Your task to perform on an android device: turn off javascript in the chrome app Image 0: 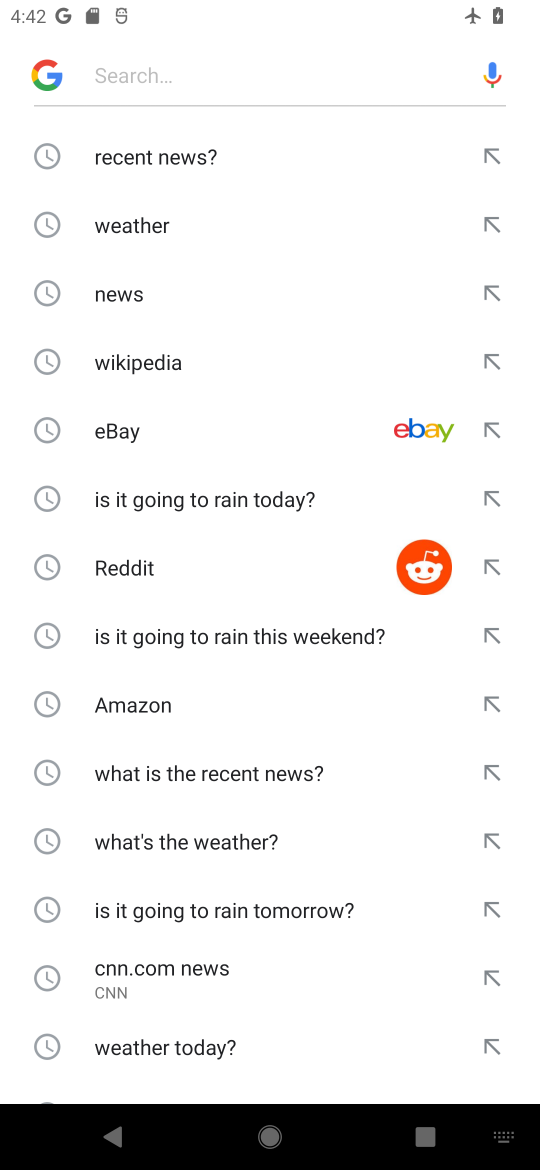
Step 0: press back button
Your task to perform on an android device: turn off javascript in the chrome app Image 1: 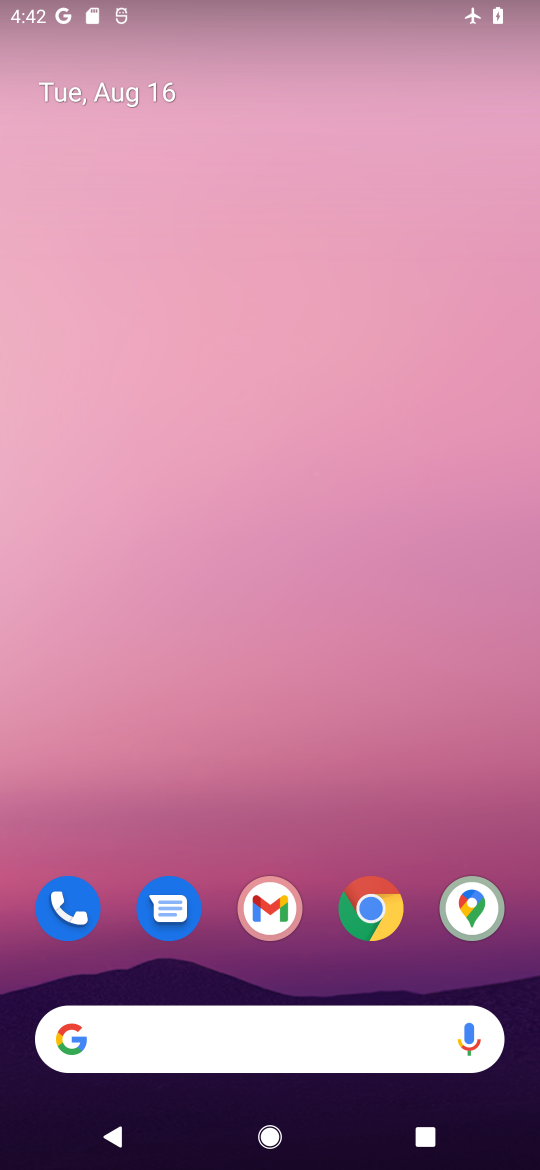
Step 1: click (377, 912)
Your task to perform on an android device: turn off javascript in the chrome app Image 2: 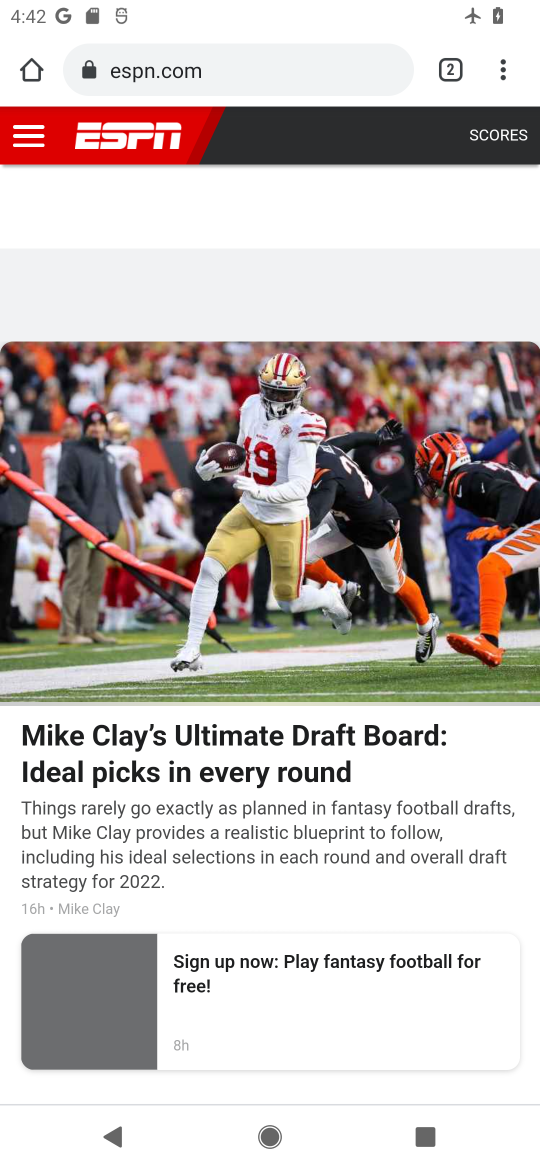
Step 2: drag from (504, 68) to (298, 893)
Your task to perform on an android device: turn off javascript in the chrome app Image 3: 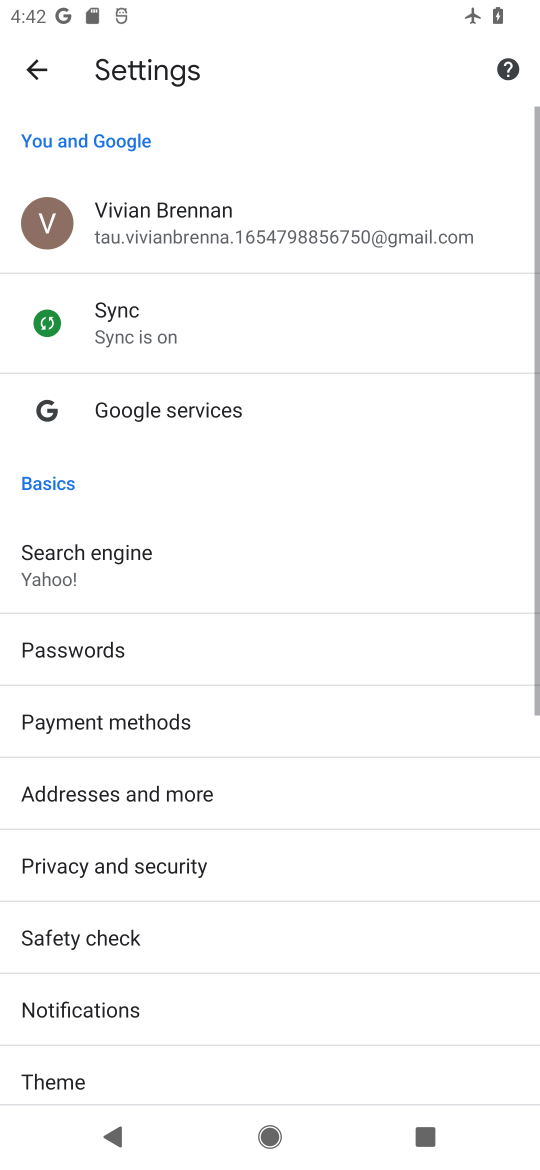
Step 3: drag from (199, 1061) to (346, 467)
Your task to perform on an android device: turn off javascript in the chrome app Image 4: 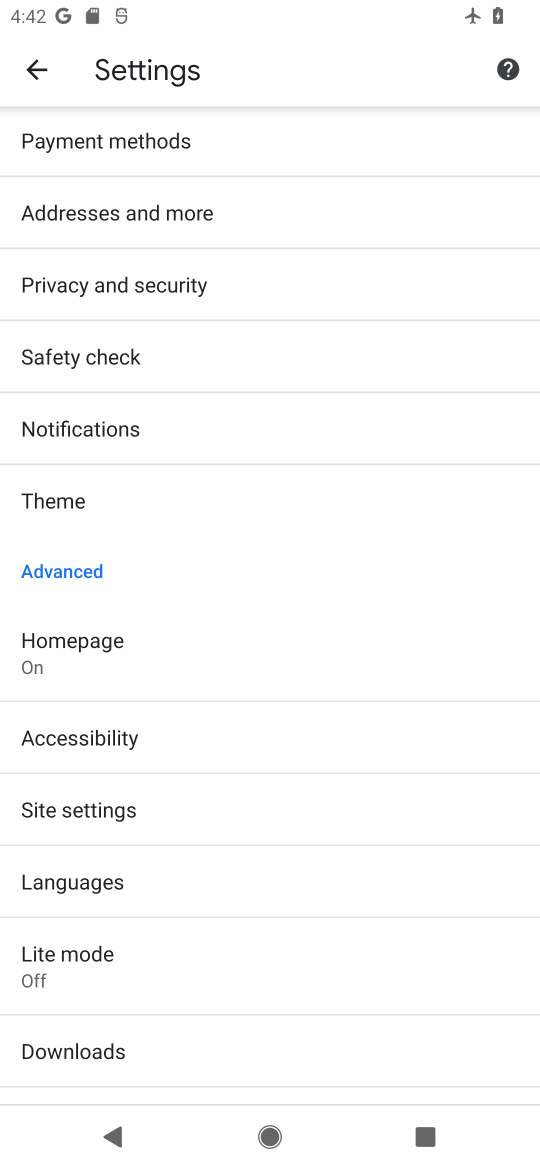
Step 4: click (93, 814)
Your task to perform on an android device: turn off javascript in the chrome app Image 5: 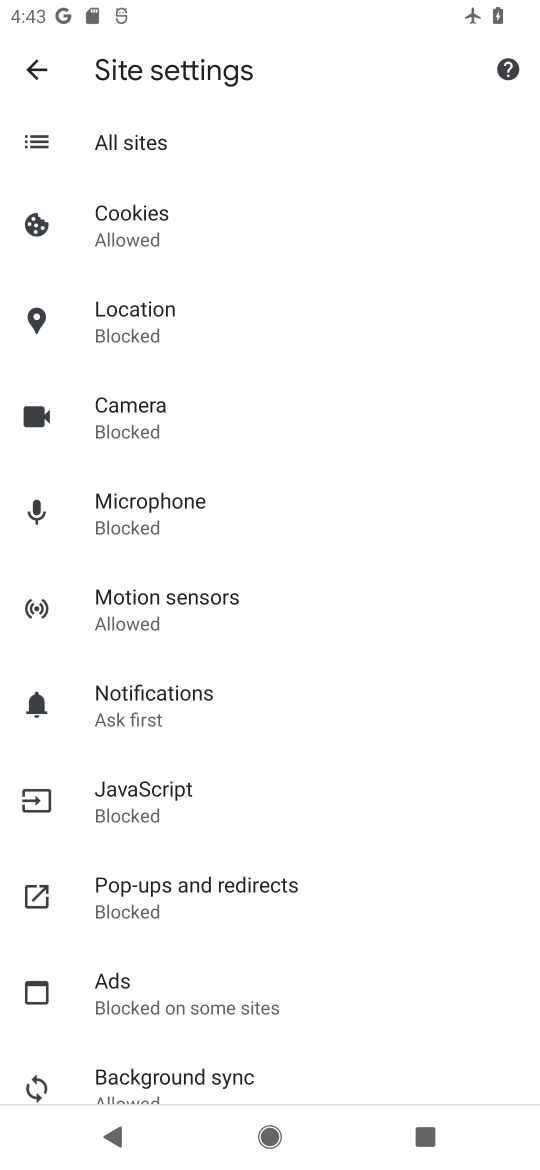
Step 5: click (218, 804)
Your task to perform on an android device: turn off javascript in the chrome app Image 6: 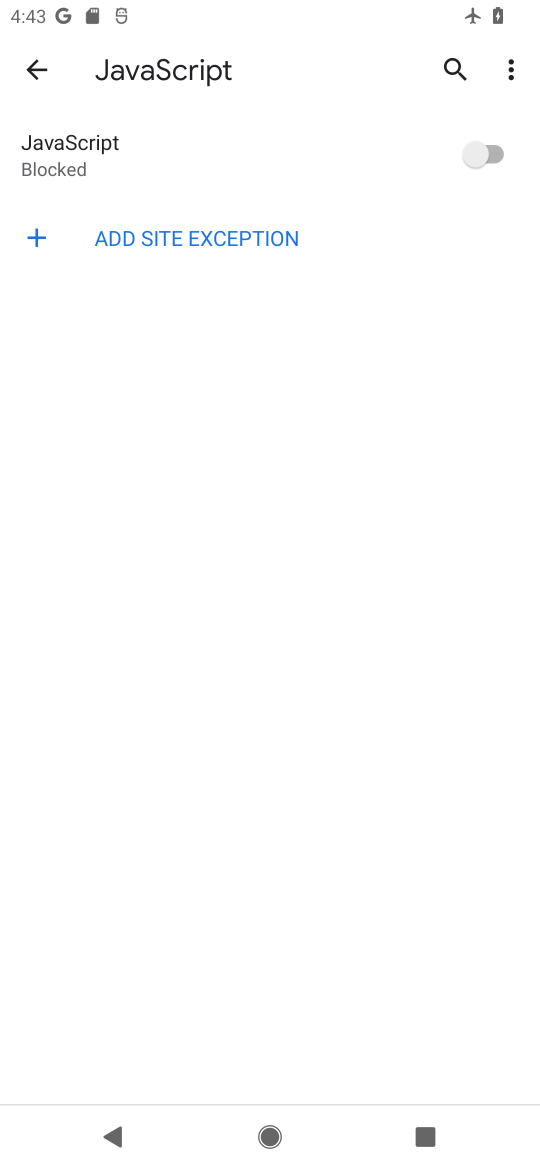
Step 6: task complete